Your task to perform on an android device: What's the weather today? Image 0: 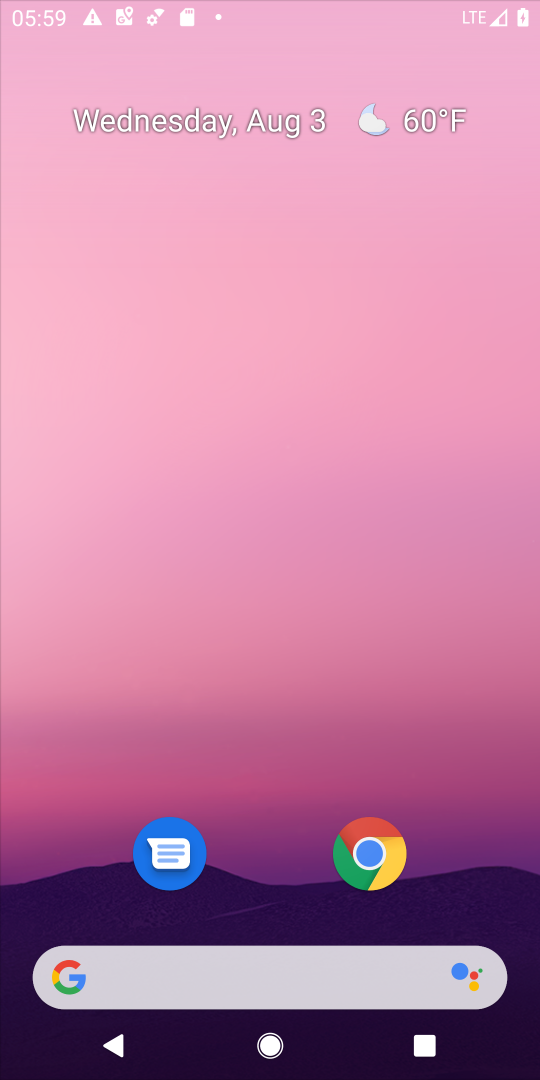
Step 0: press home button
Your task to perform on an android device: What's the weather today? Image 1: 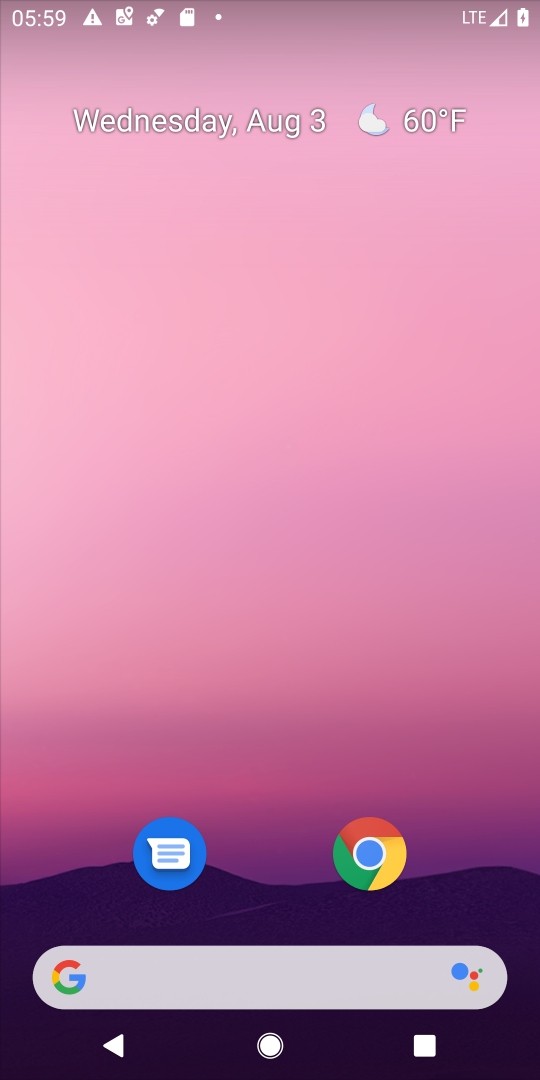
Step 1: drag from (292, 895) to (293, 318)
Your task to perform on an android device: What's the weather today? Image 2: 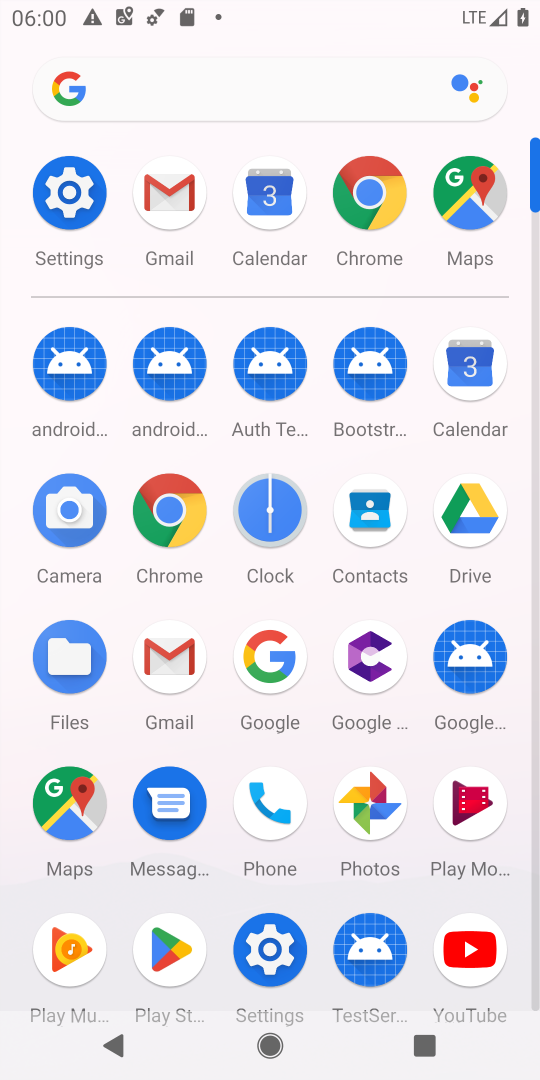
Step 2: click (254, 667)
Your task to perform on an android device: What's the weather today? Image 3: 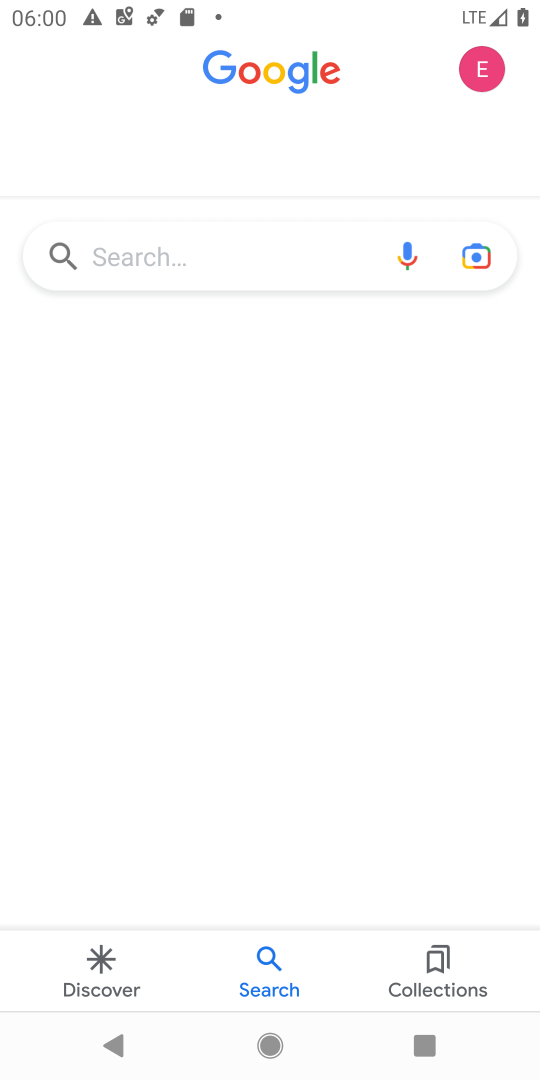
Step 3: click (349, 240)
Your task to perform on an android device: What's the weather today? Image 4: 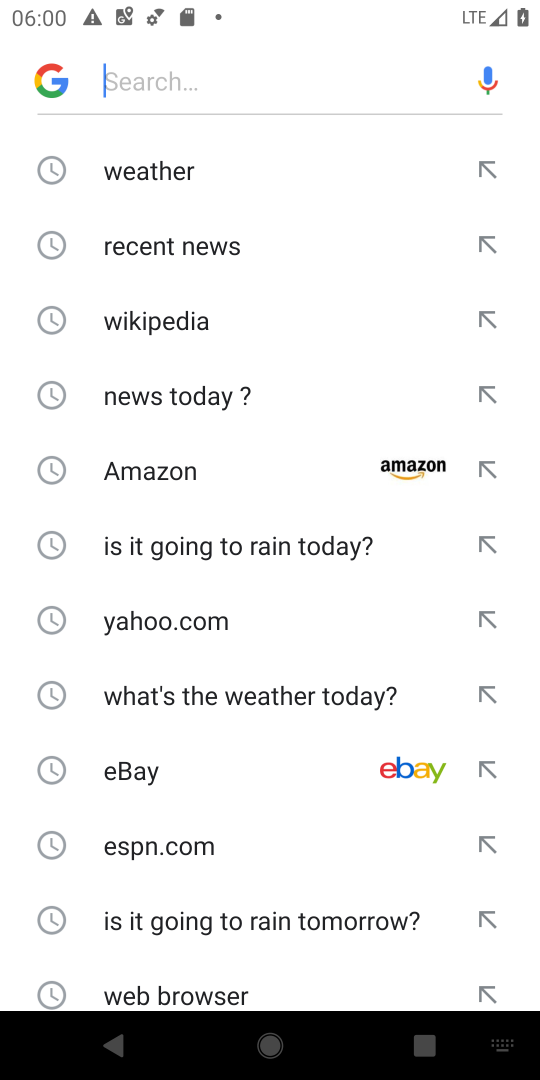
Step 4: click (159, 169)
Your task to perform on an android device: What's the weather today? Image 5: 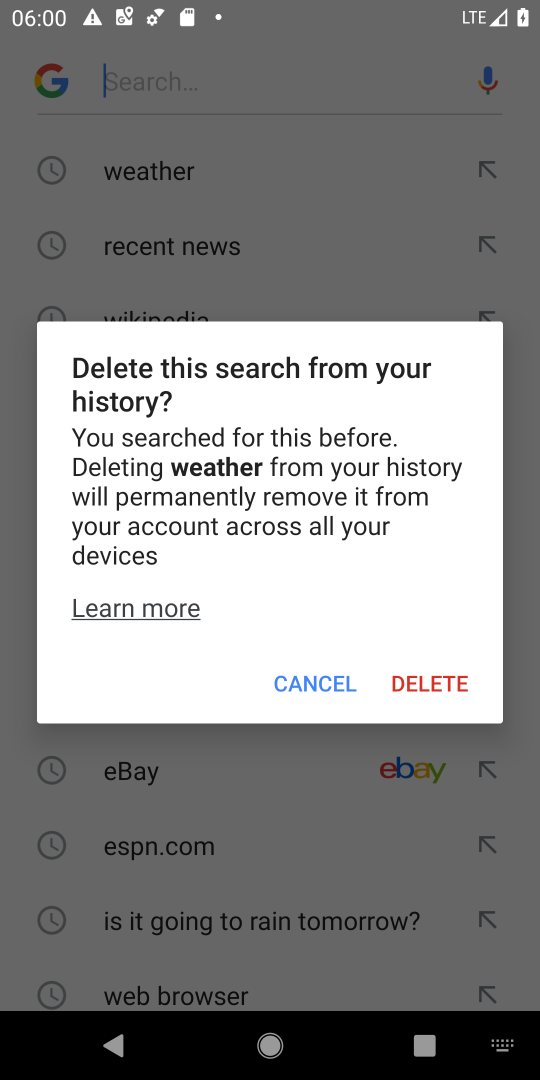
Step 5: press home button
Your task to perform on an android device: What's the weather today? Image 6: 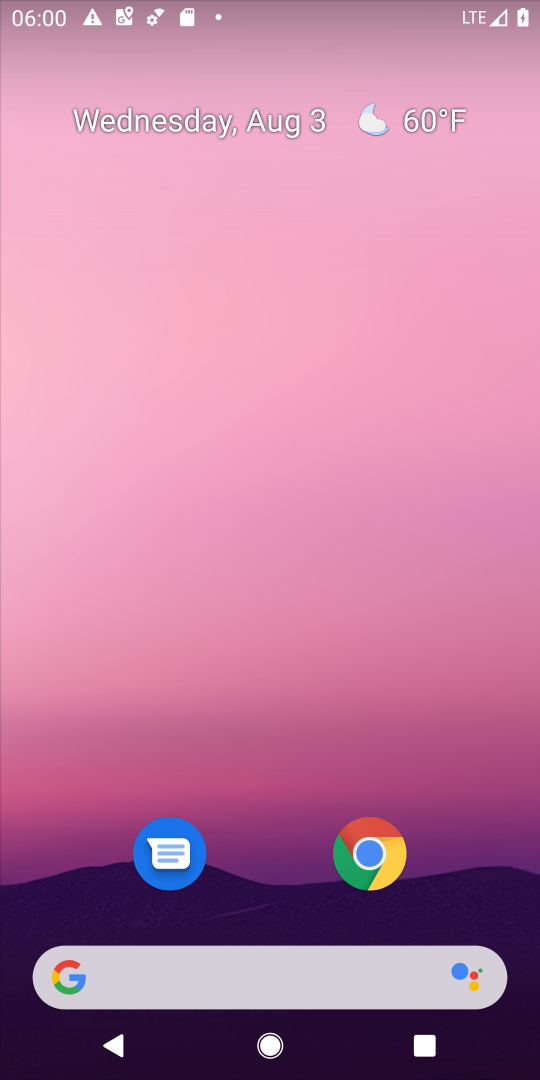
Step 6: drag from (258, 927) to (281, 213)
Your task to perform on an android device: What's the weather today? Image 7: 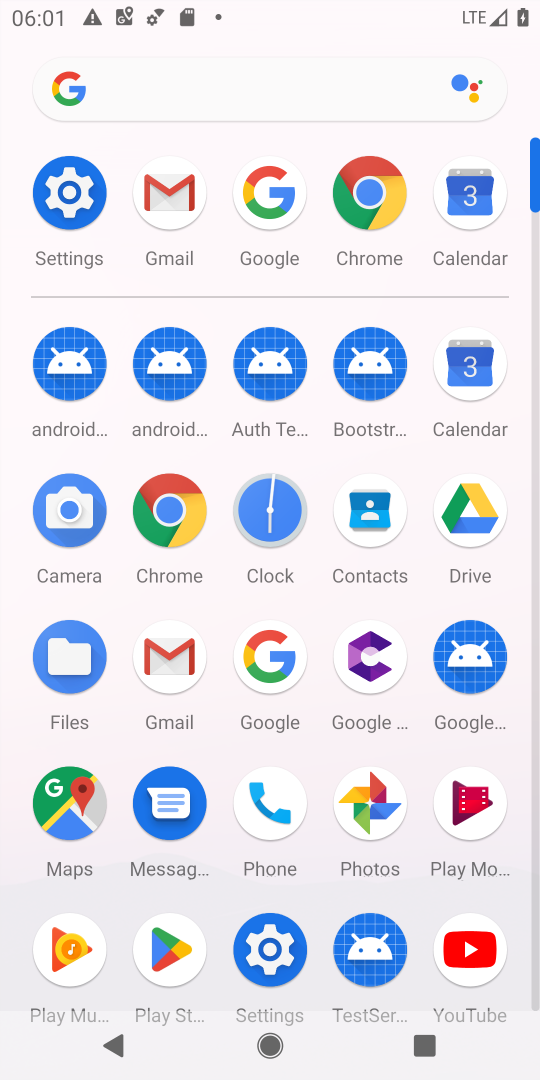
Step 7: click (287, 653)
Your task to perform on an android device: What's the weather today? Image 8: 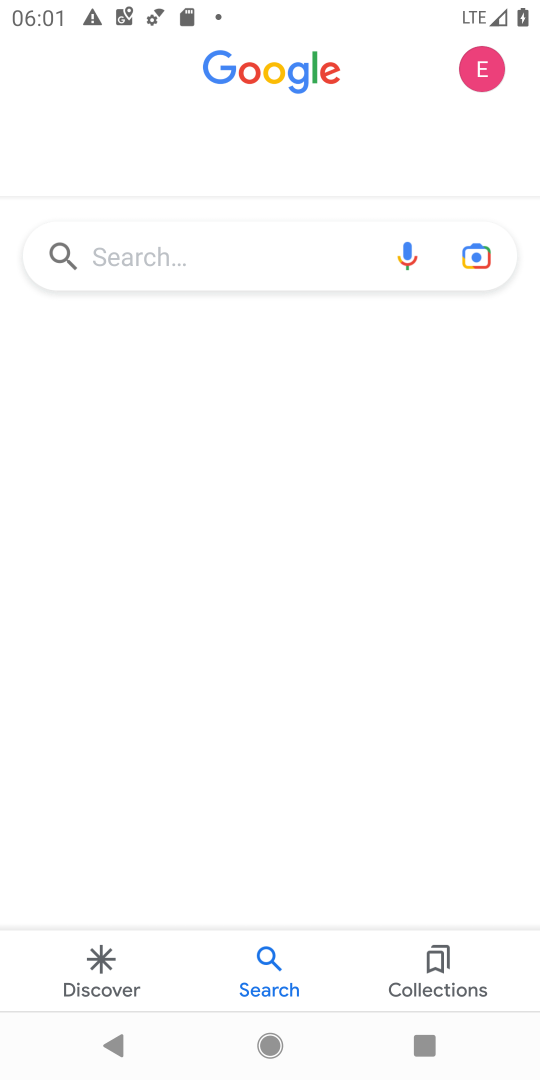
Step 8: click (287, 262)
Your task to perform on an android device: What's the weather today? Image 9: 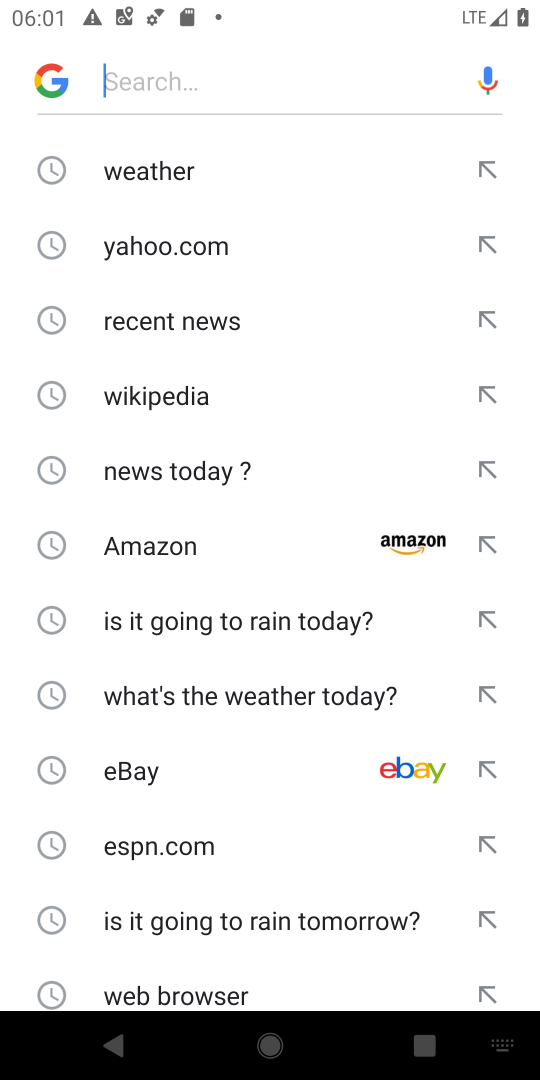
Step 9: click (155, 162)
Your task to perform on an android device: What's the weather today? Image 10: 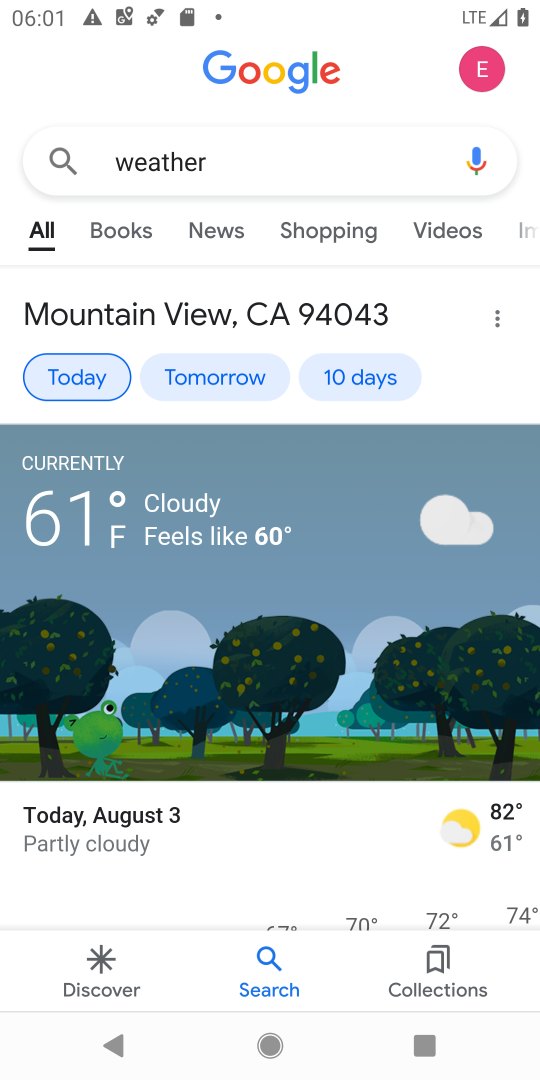
Step 10: click (73, 371)
Your task to perform on an android device: What's the weather today? Image 11: 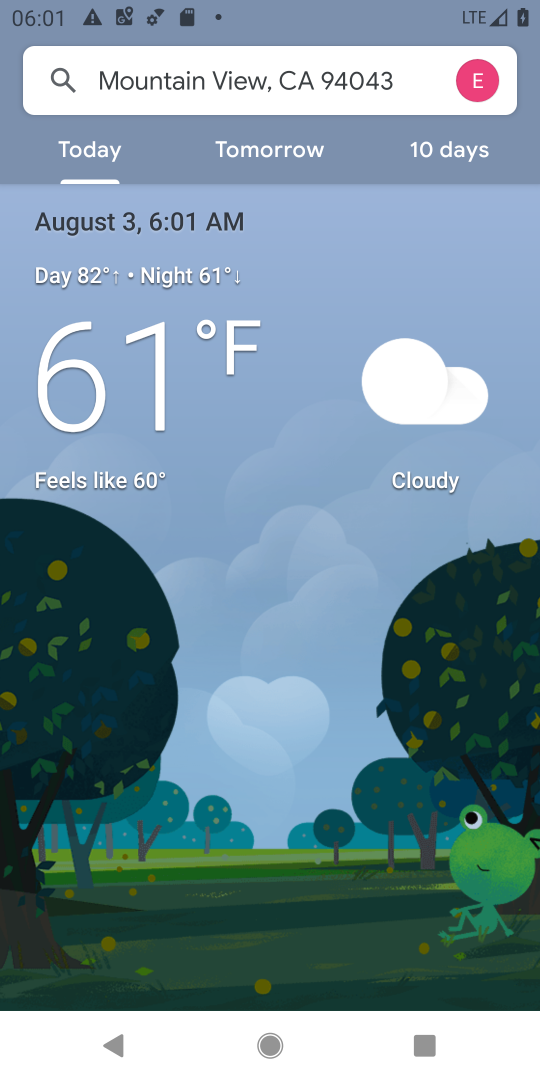
Step 11: task complete